Your task to perform on an android device: Check the news Image 0: 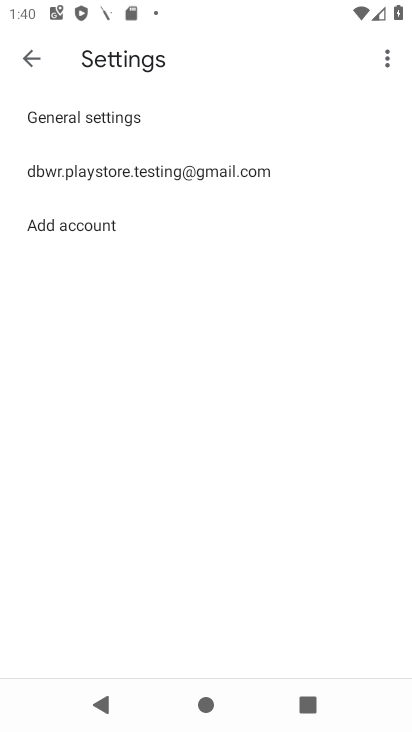
Step 0: press home button
Your task to perform on an android device: Check the news Image 1: 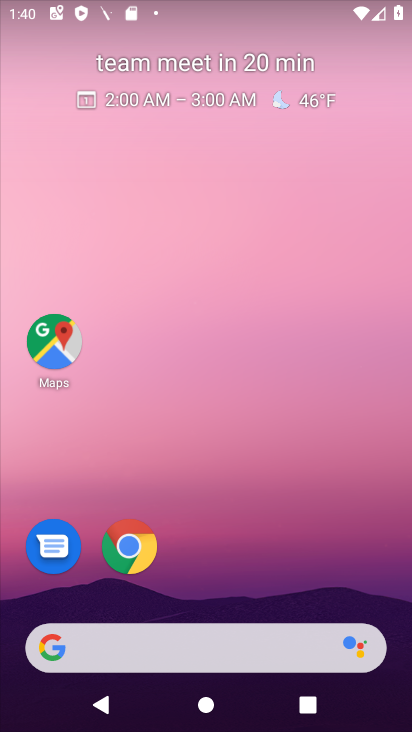
Step 1: task complete